Your task to perform on an android device: manage bookmarks in the chrome app Image 0: 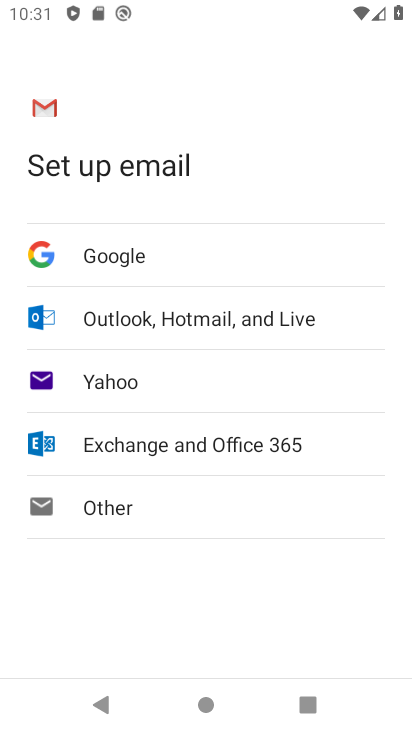
Step 0: press home button
Your task to perform on an android device: manage bookmarks in the chrome app Image 1: 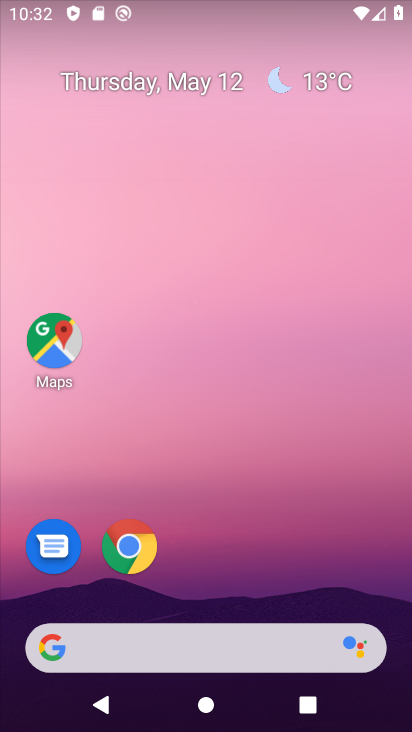
Step 1: drag from (234, 679) to (296, 142)
Your task to perform on an android device: manage bookmarks in the chrome app Image 2: 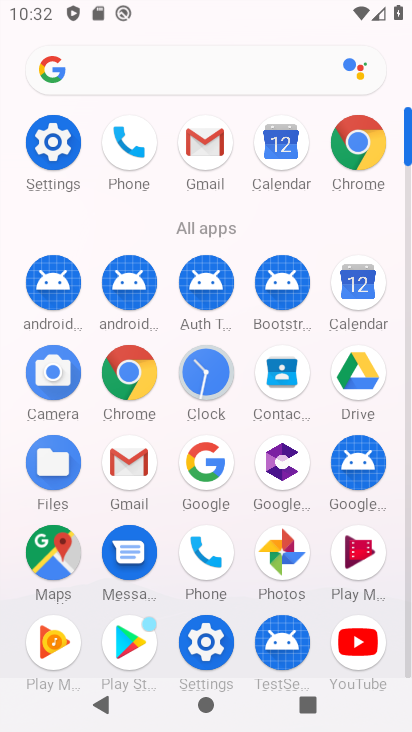
Step 2: click (359, 166)
Your task to perform on an android device: manage bookmarks in the chrome app Image 3: 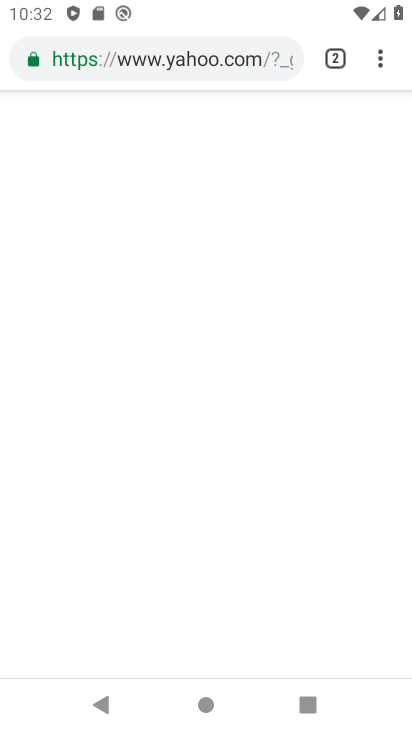
Step 3: click (377, 75)
Your task to perform on an android device: manage bookmarks in the chrome app Image 4: 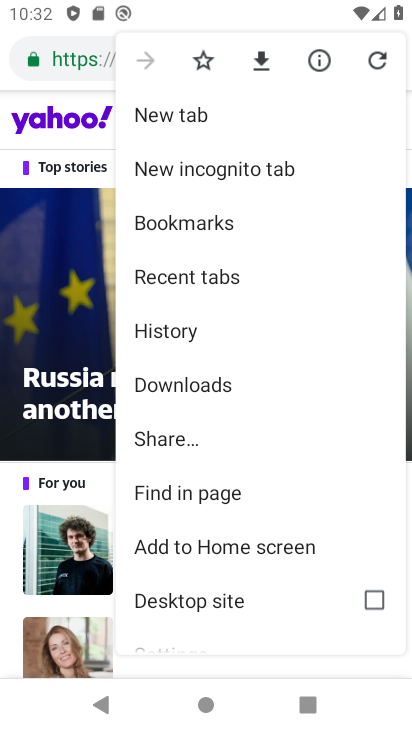
Step 4: click (194, 238)
Your task to perform on an android device: manage bookmarks in the chrome app Image 5: 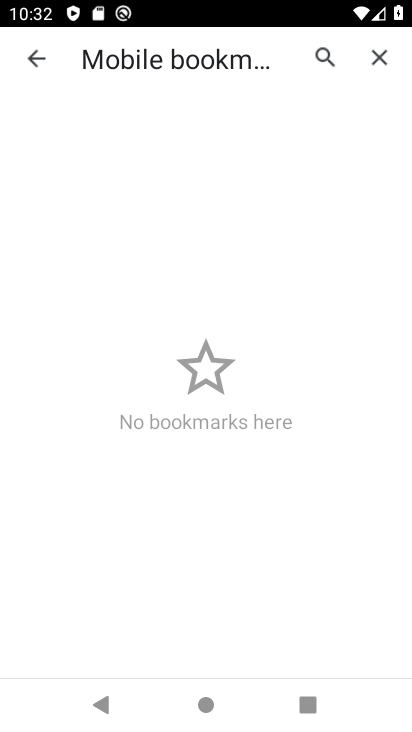
Step 5: task complete